Your task to perform on an android device: change the clock display to show seconds Image 0: 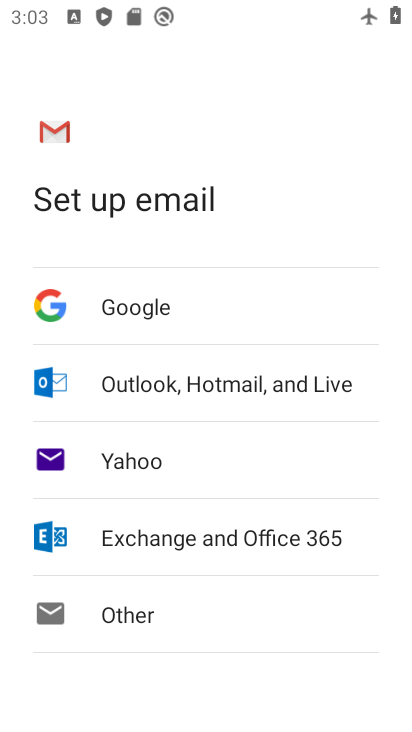
Step 0: press home button
Your task to perform on an android device: change the clock display to show seconds Image 1: 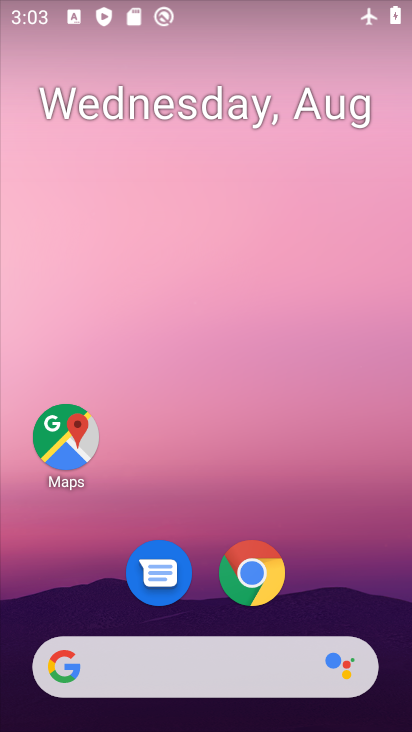
Step 1: drag from (308, 572) to (341, 10)
Your task to perform on an android device: change the clock display to show seconds Image 2: 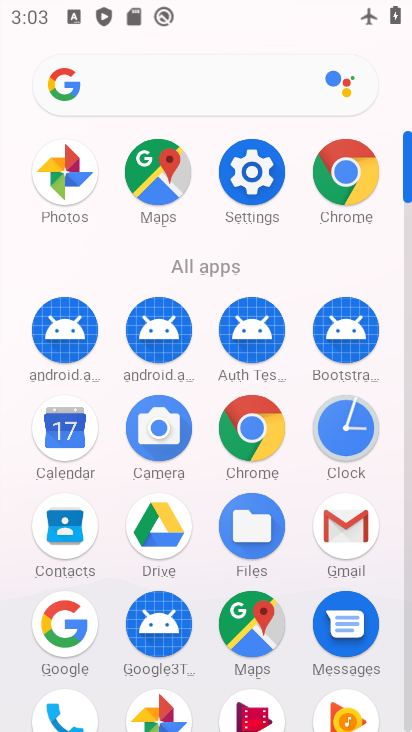
Step 2: click (345, 416)
Your task to perform on an android device: change the clock display to show seconds Image 3: 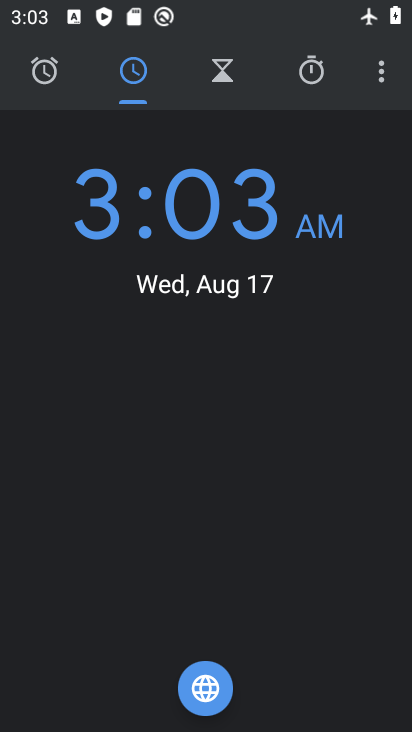
Step 3: click (379, 69)
Your task to perform on an android device: change the clock display to show seconds Image 4: 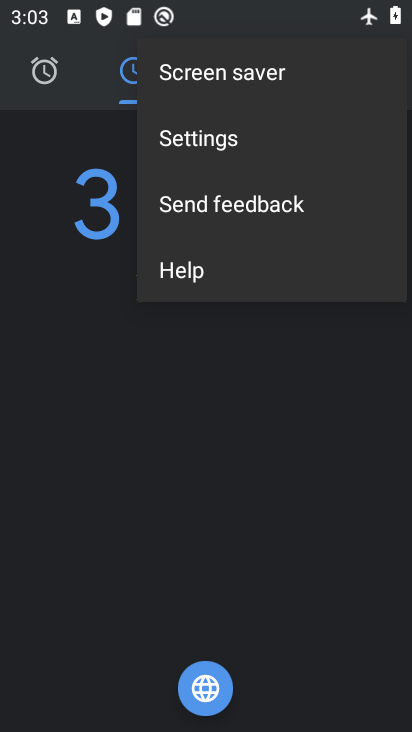
Step 4: click (299, 147)
Your task to perform on an android device: change the clock display to show seconds Image 5: 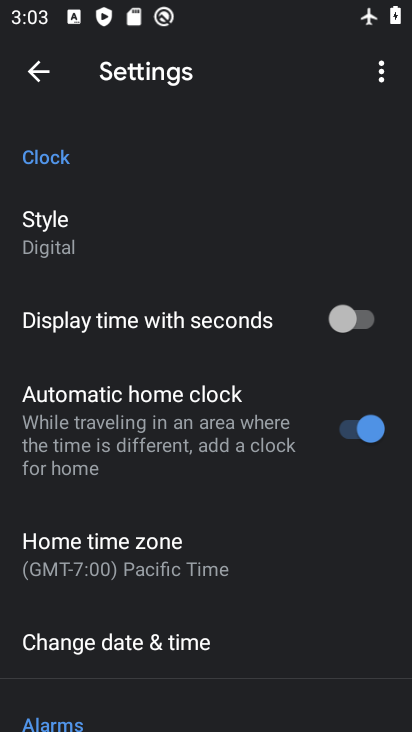
Step 5: click (356, 319)
Your task to perform on an android device: change the clock display to show seconds Image 6: 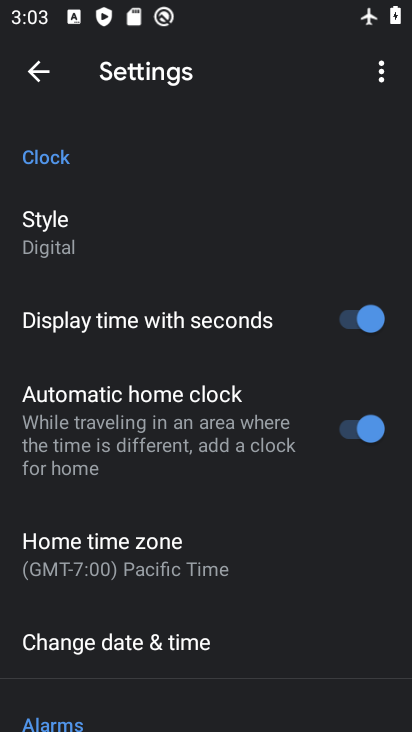
Step 6: click (35, 70)
Your task to perform on an android device: change the clock display to show seconds Image 7: 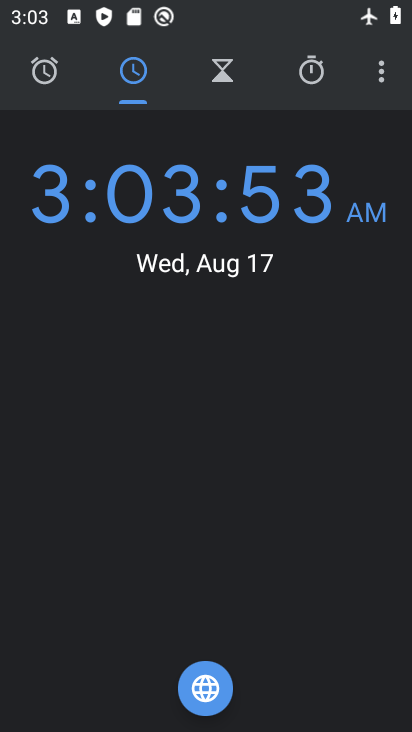
Step 7: task complete